Your task to perform on an android device: open a new tab in the chrome app Image 0: 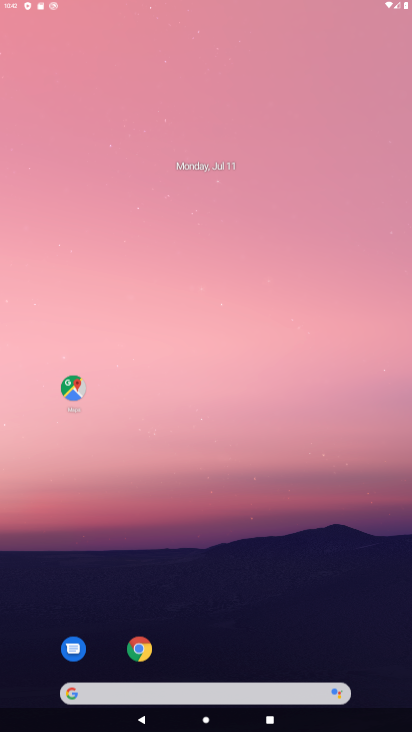
Step 0: drag from (289, 591) to (199, 94)
Your task to perform on an android device: open a new tab in the chrome app Image 1: 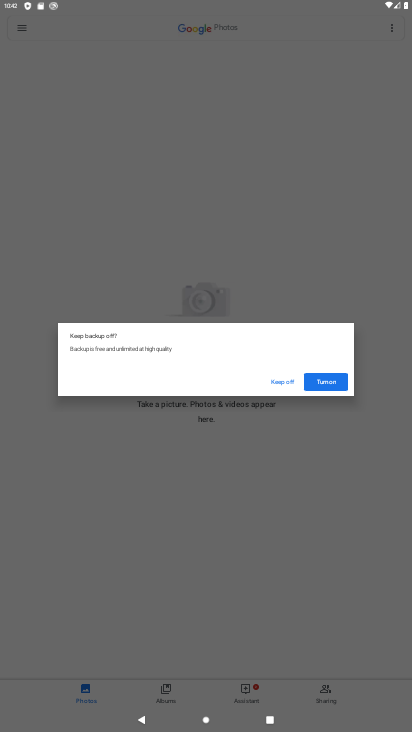
Step 1: press home button
Your task to perform on an android device: open a new tab in the chrome app Image 2: 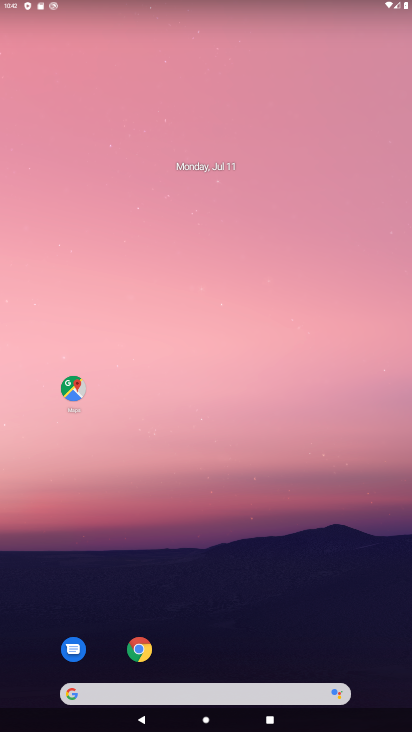
Step 2: drag from (337, 565) to (256, 149)
Your task to perform on an android device: open a new tab in the chrome app Image 3: 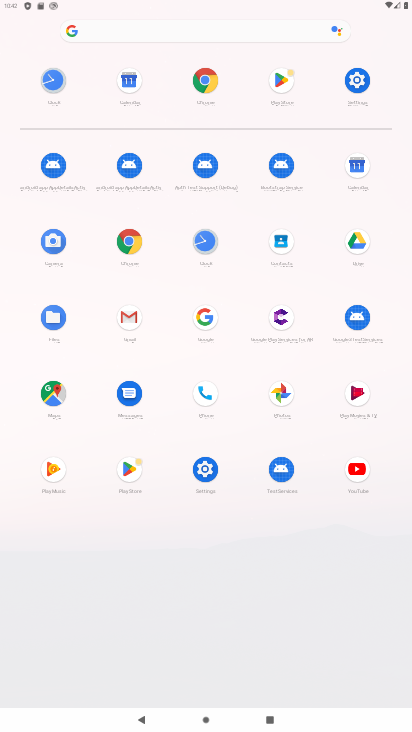
Step 3: click (131, 239)
Your task to perform on an android device: open a new tab in the chrome app Image 4: 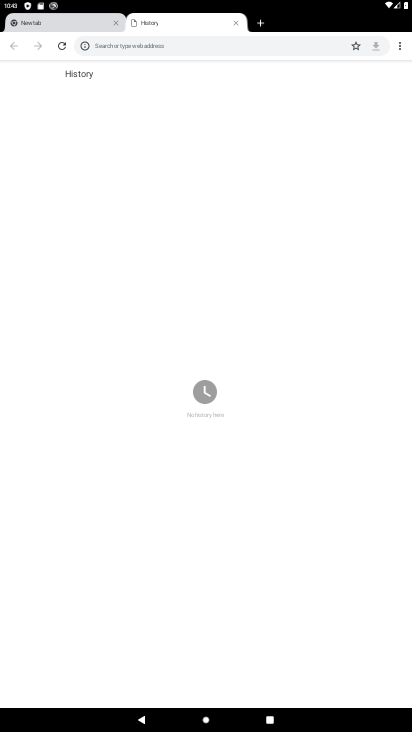
Step 4: click (260, 20)
Your task to perform on an android device: open a new tab in the chrome app Image 5: 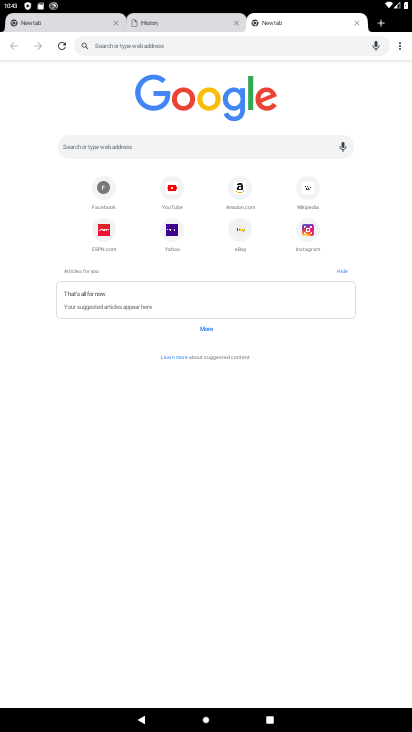
Step 5: task complete